Your task to perform on an android device: open app "Adobe Express: Graphic Design" (install if not already installed) Image 0: 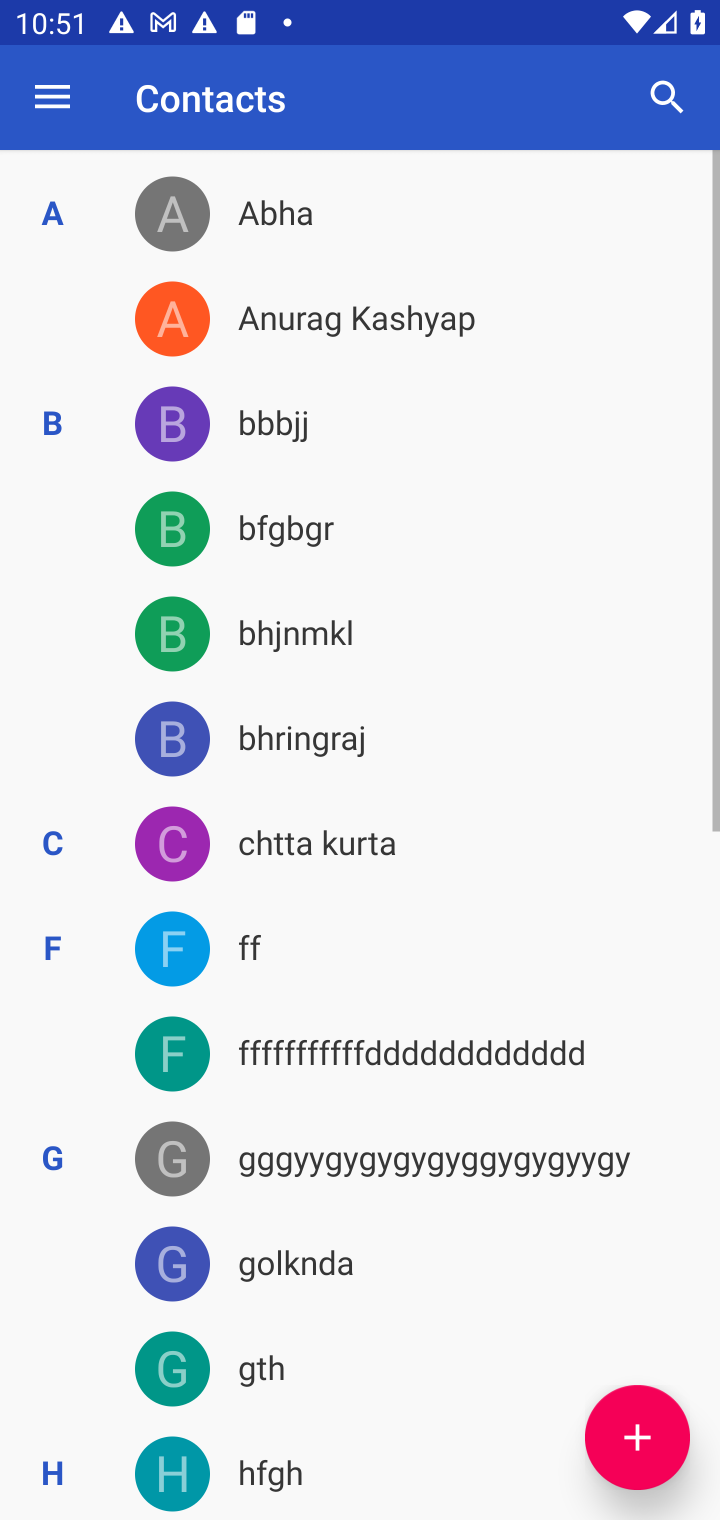
Step 0: press home button
Your task to perform on an android device: open app "Adobe Express: Graphic Design" (install if not already installed) Image 1: 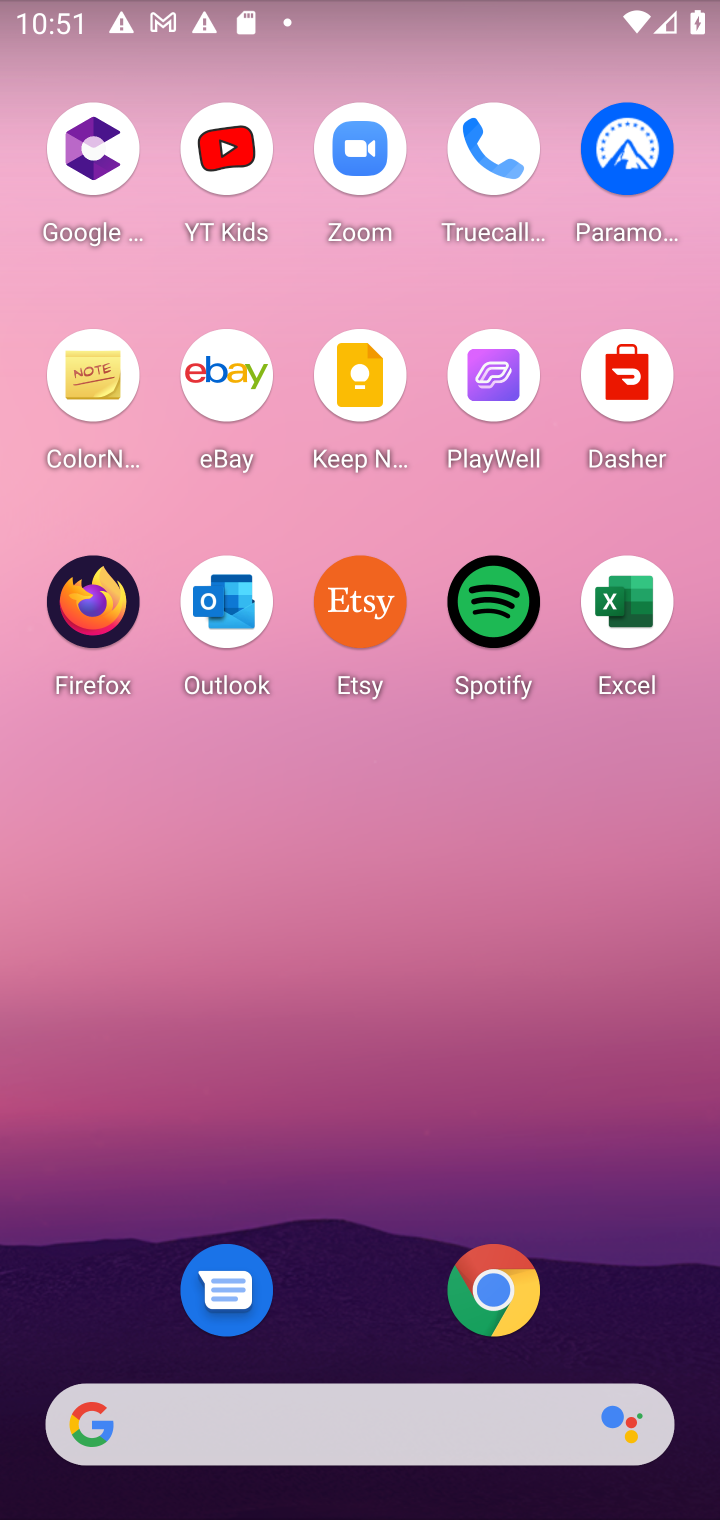
Step 1: drag from (618, 1230) to (604, 174)
Your task to perform on an android device: open app "Adobe Express: Graphic Design" (install if not already installed) Image 2: 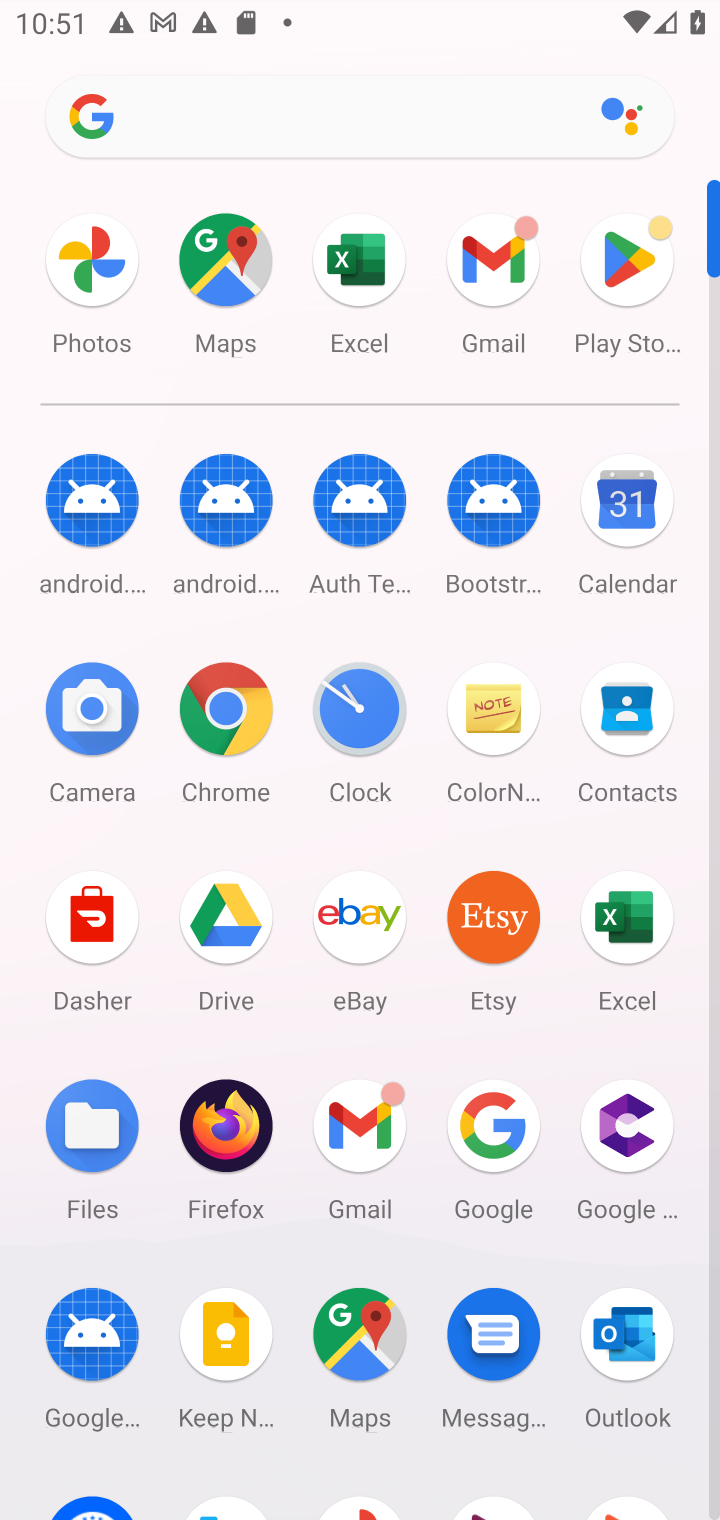
Step 2: click (632, 271)
Your task to perform on an android device: open app "Adobe Express: Graphic Design" (install if not already installed) Image 3: 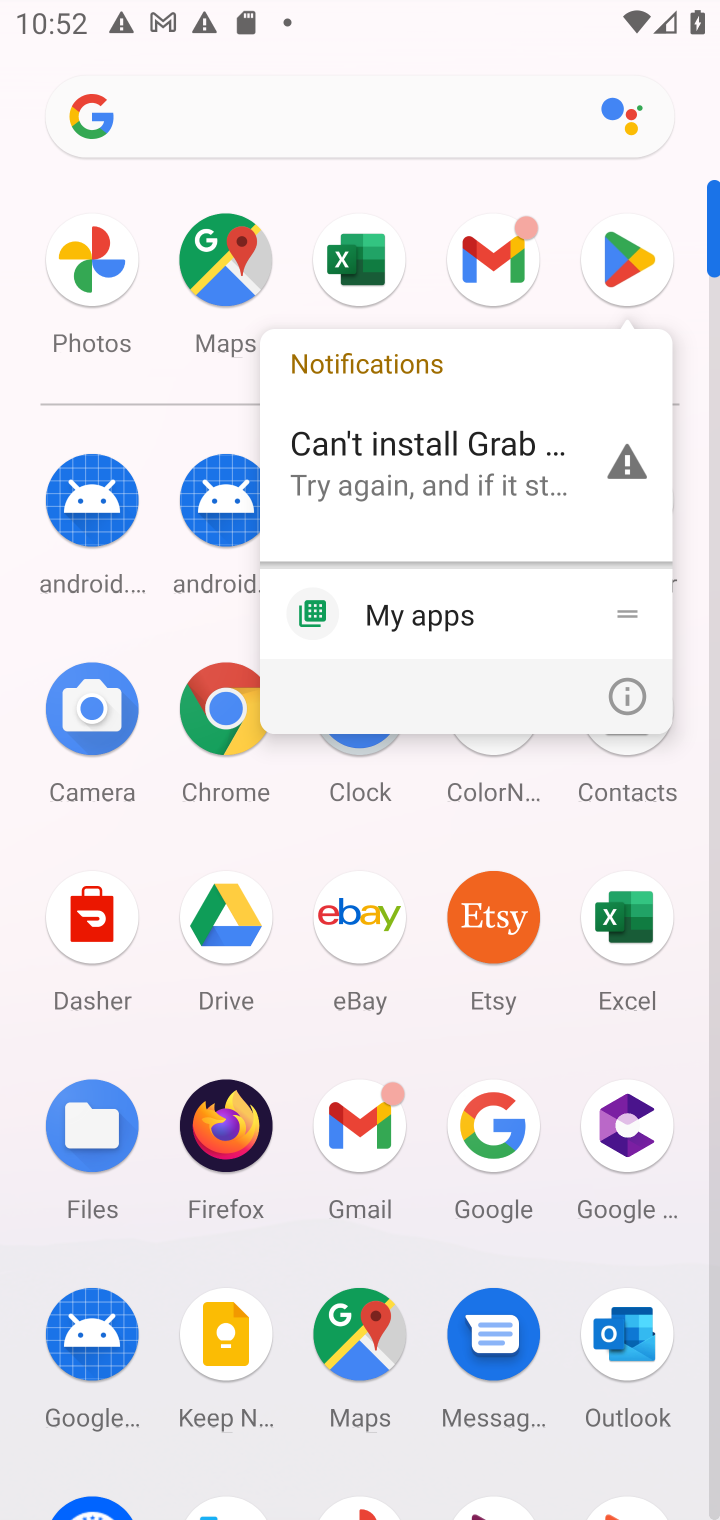
Step 3: click (632, 271)
Your task to perform on an android device: open app "Adobe Express: Graphic Design" (install if not already installed) Image 4: 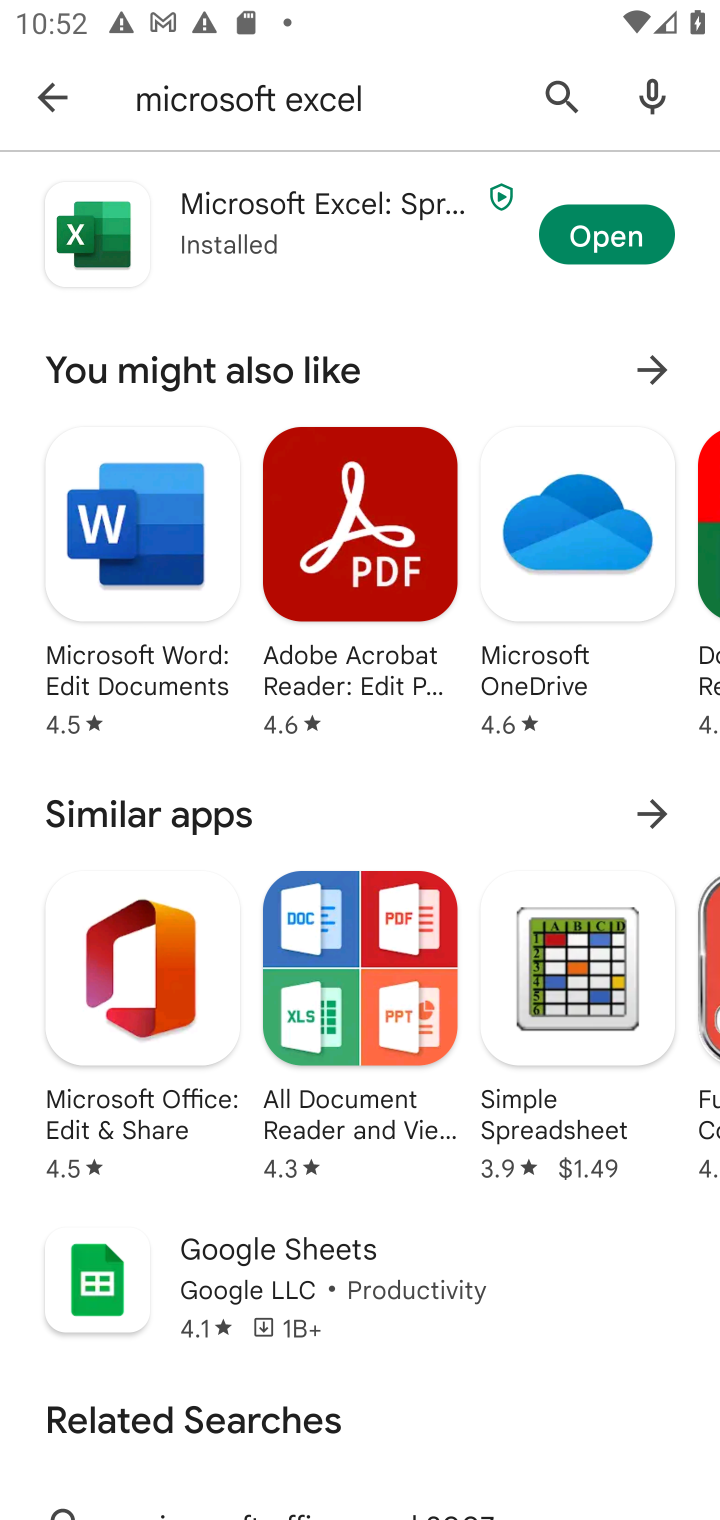
Step 4: click (571, 73)
Your task to perform on an android device: open app "Adobe Express: Graphic Design" (install if not already installed) Image 5: 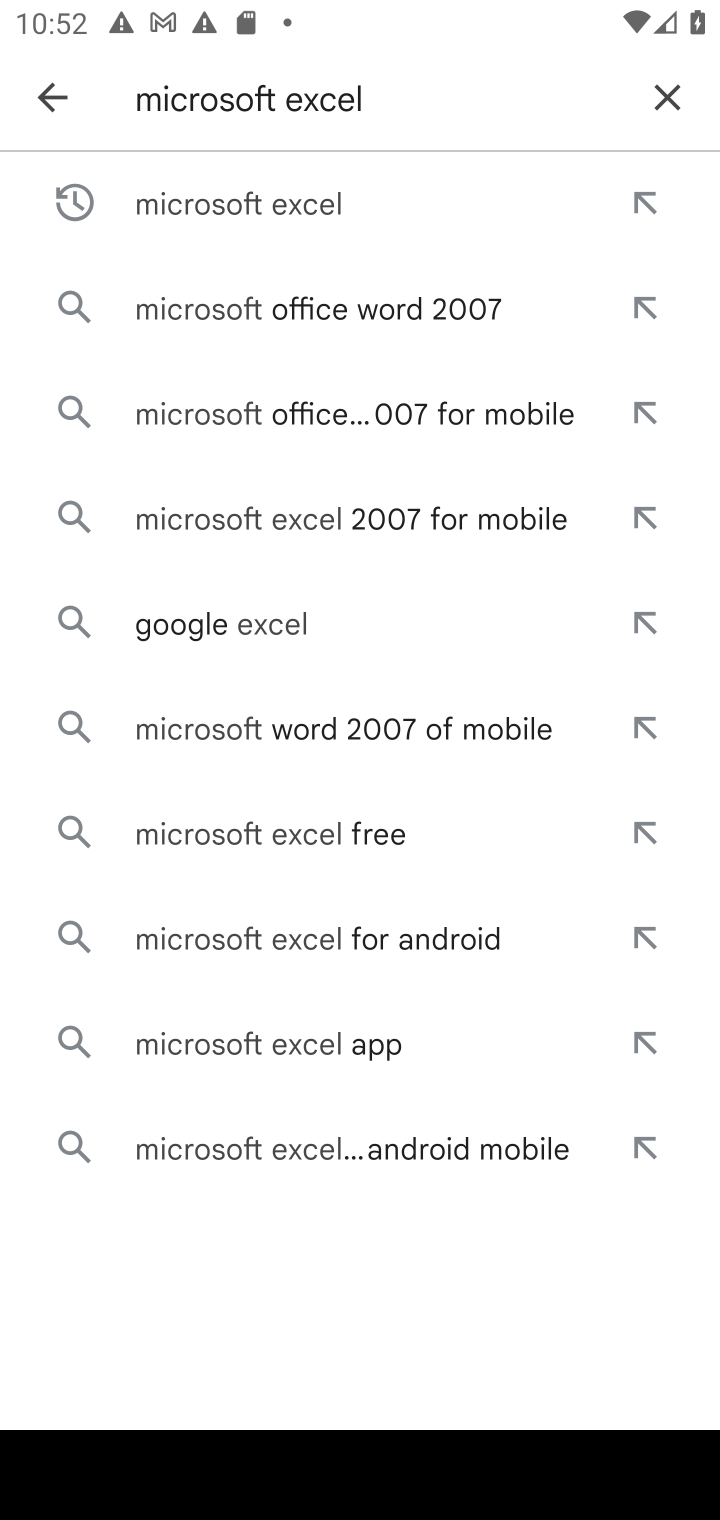
Step 5: click (659, 109)
Your task to perform on an android device: open app "Adobe Express: Graphic Design" (install if not already installed) Image 6: 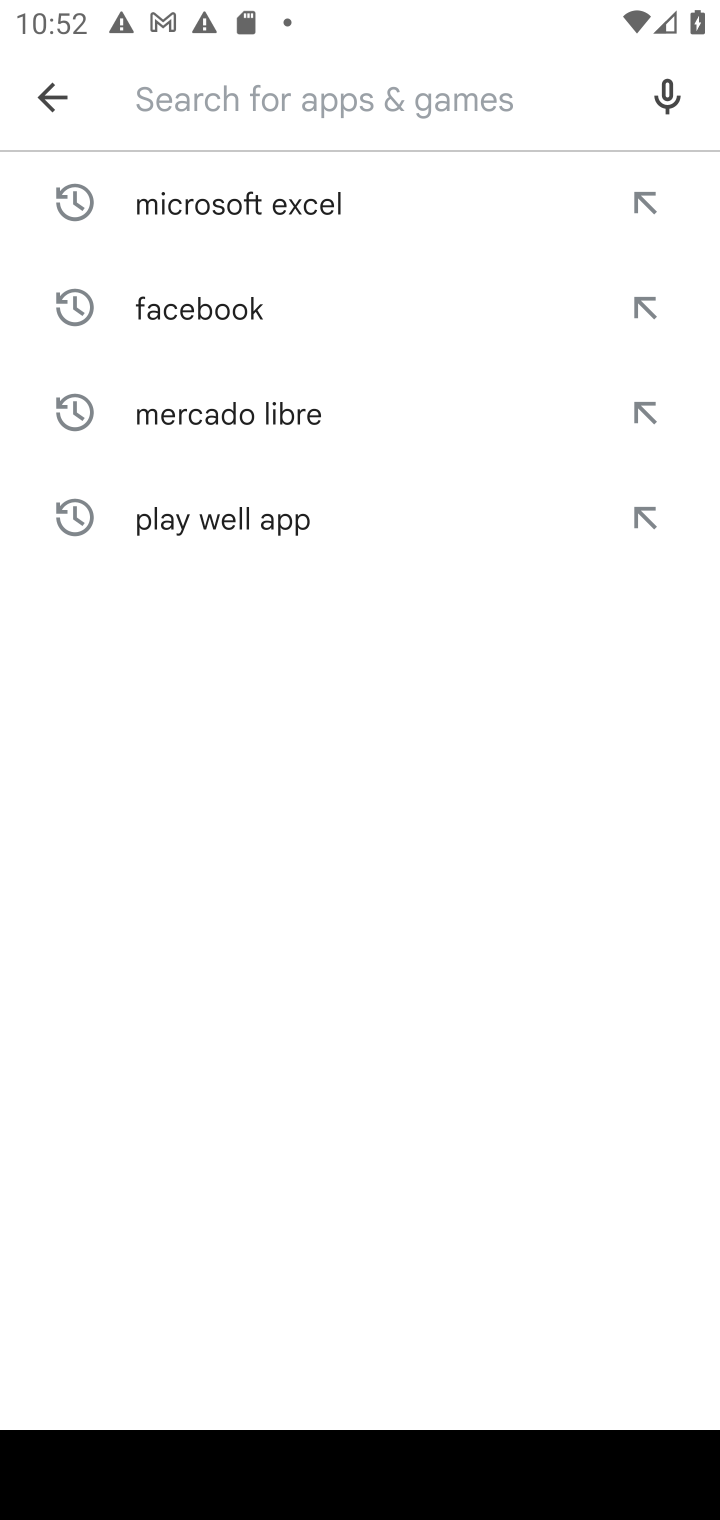
Step 6: type "Adobe Express: Graphic Design"
Your task to perform on an android device: open app "Adobe Express: Graphic Design" (install if not already installed) Image 7: 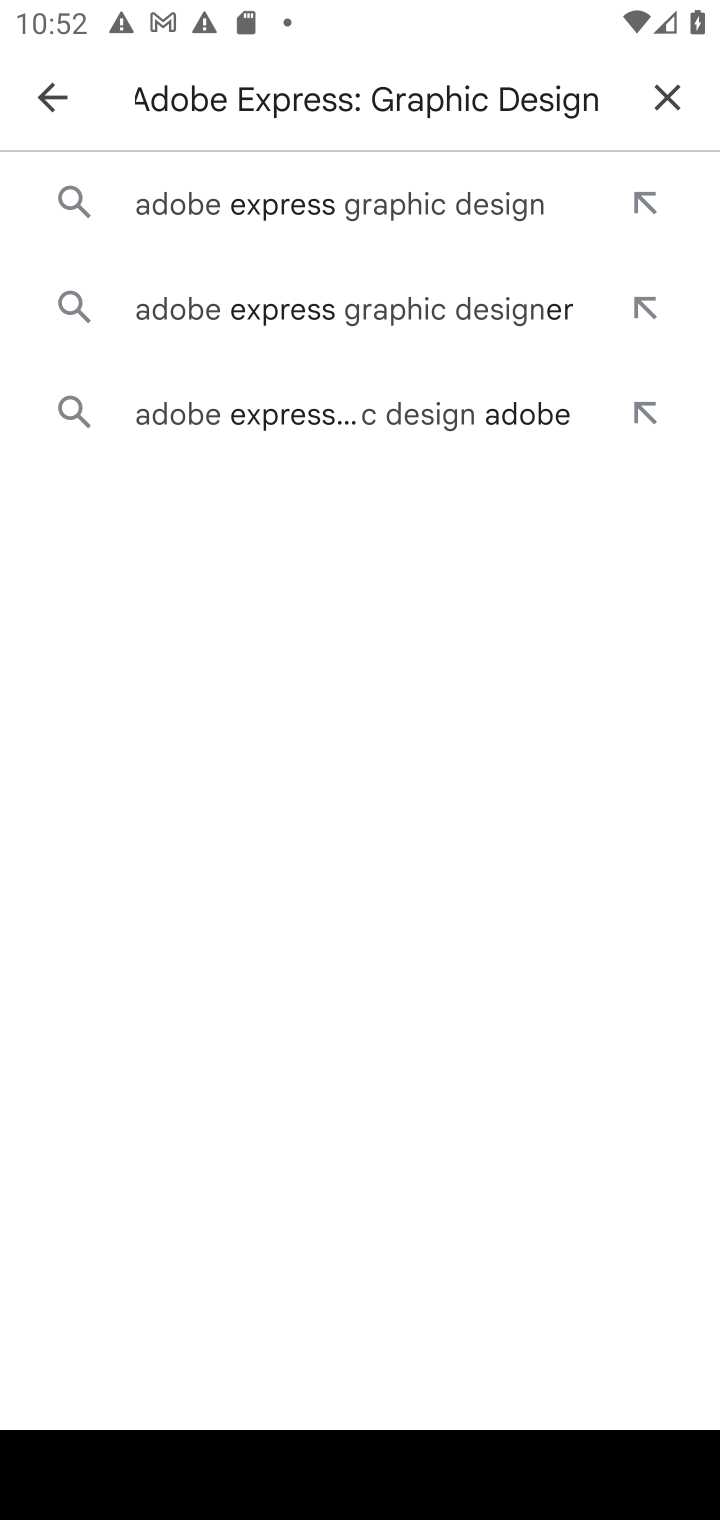
Step 7: click (459, 203)
Your task to perform on an android device: open app "Adobe Express: Graphic Design" (install if not already installed) Image 8: 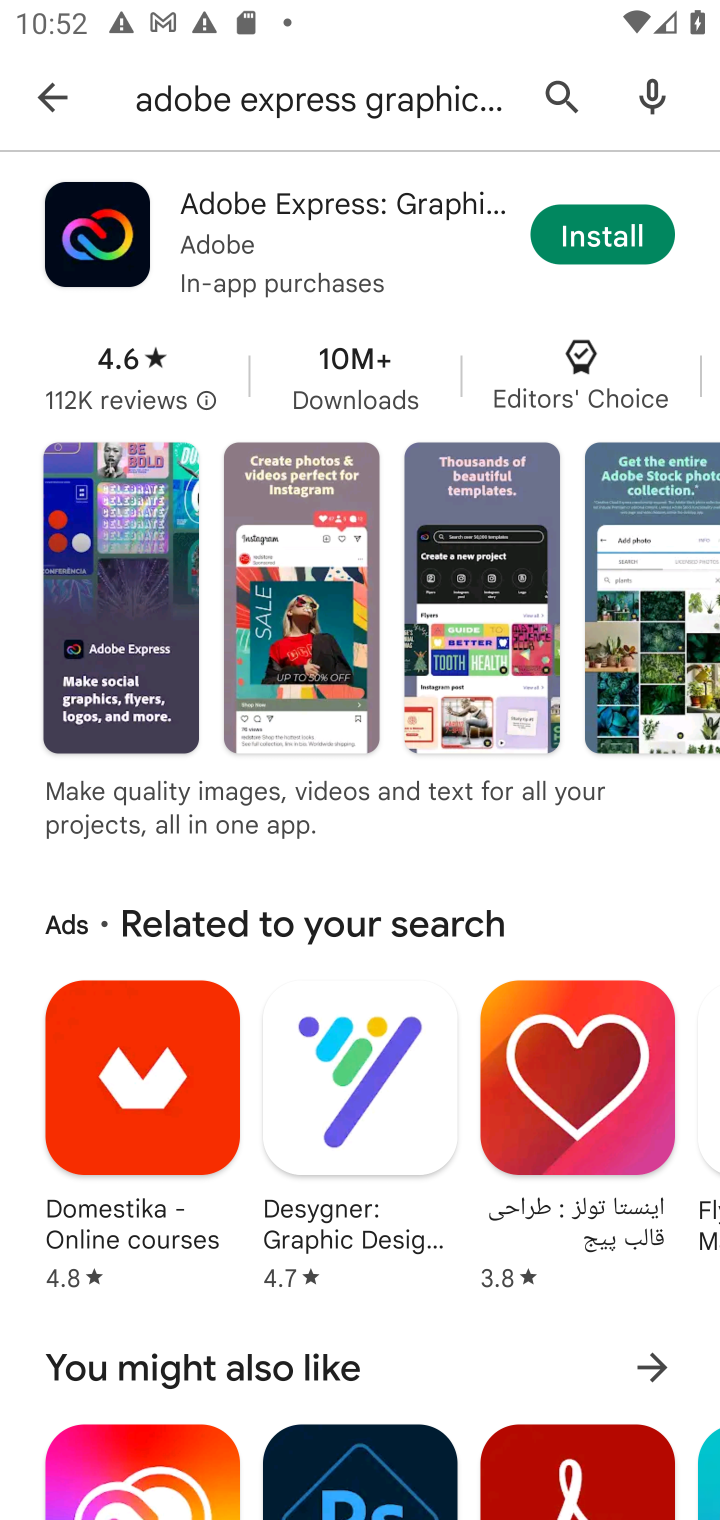
Step 8: click (615, 223)
Your task to perform on an android device: open app "Adobe Express: Graphic Design" (install if not already installed) Image 9: 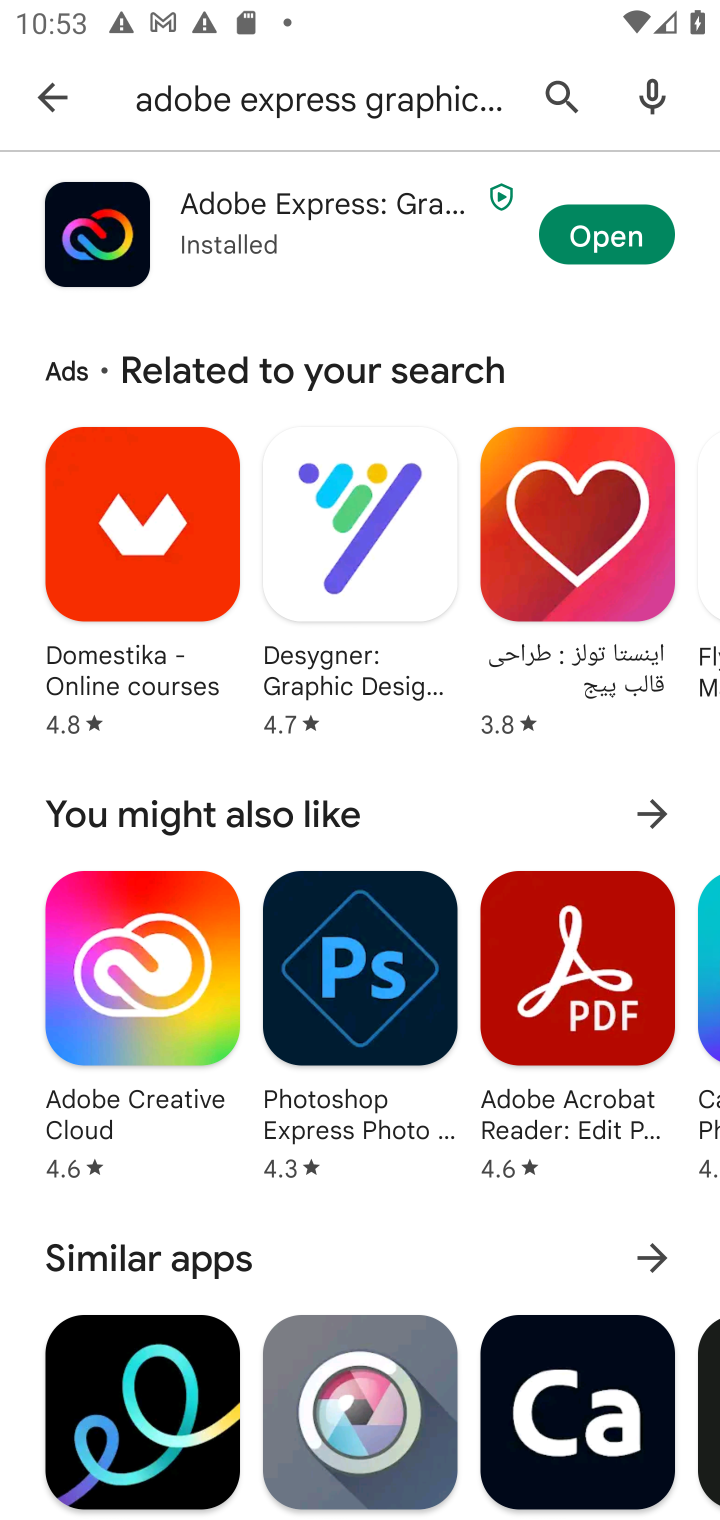
Step 9: task complete